Your task to perform on an android device: Is it going to rain tomorrow? Image 0: 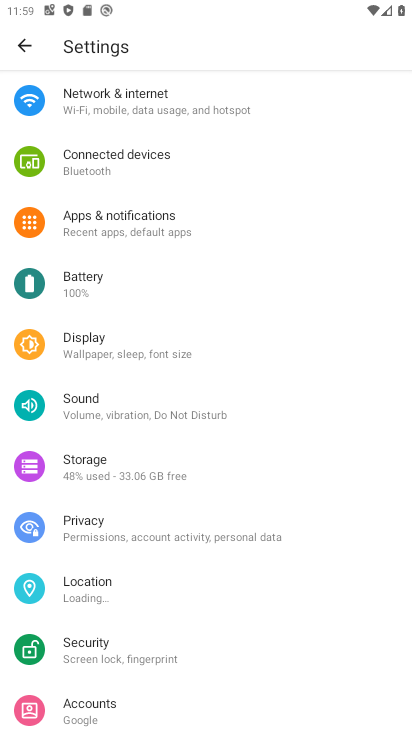
Step 0: press home button
Your task to perform on an android device: Is it going to rain tomorrow? Image 1: 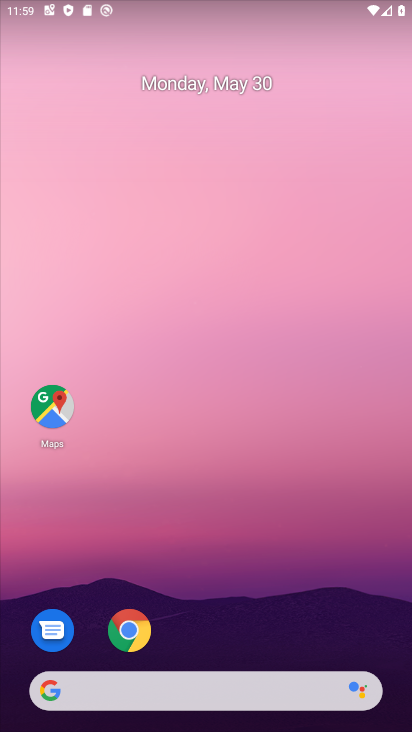
Step 1: click (56, 691)
Your task to perform on an android device: Is it going to rain tomorrow? Image 2: 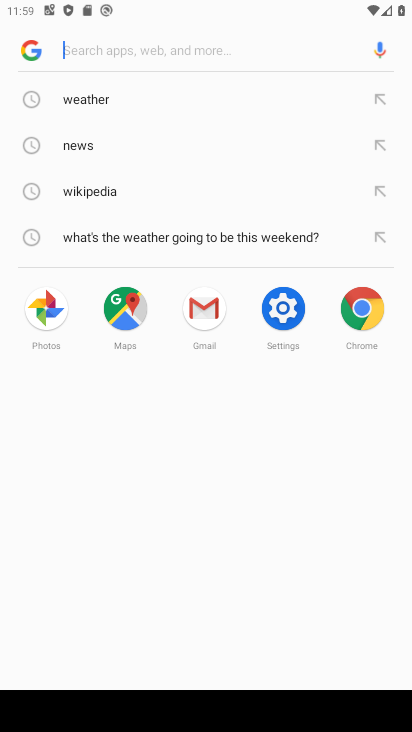
Step 2: click (84, 108)
Your task to perform on an android device: Is it going to rain tomorrow? Image 3: 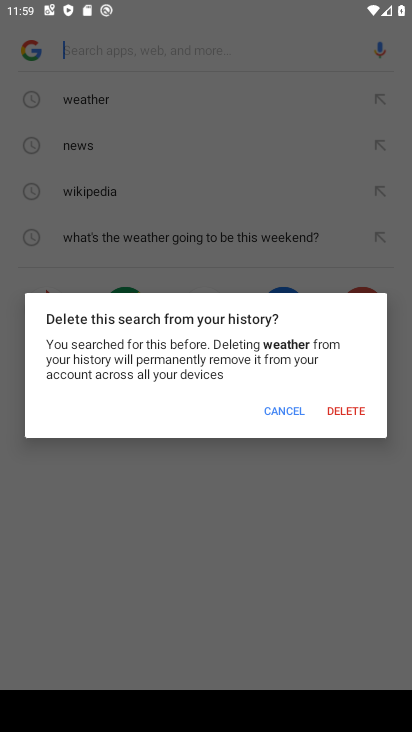
Step 3: click (279, 413)
Your task to perform on an android device: Is it going to rain tomorrow? Image 4: 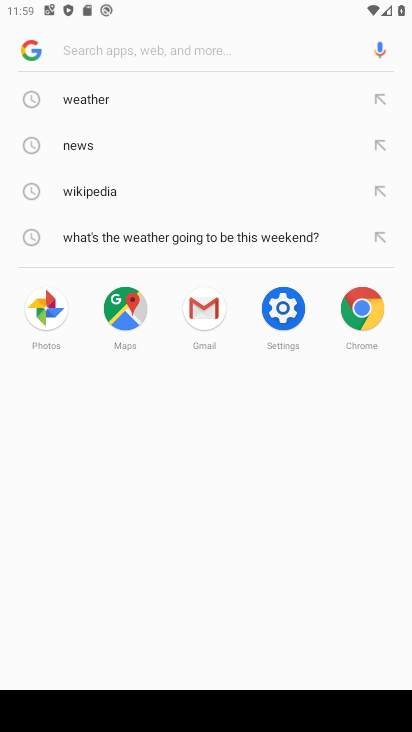
Step 4: click (81, 102)
Your task to perform on an android device: Is it going to rain tomorrow? Image 5: 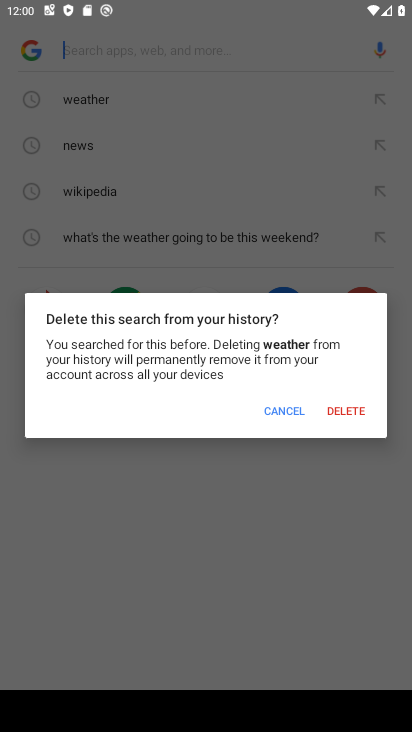
Step 5: click (284, 414)
Your task to perform on an android device: Is it going to rain tomorrow? Image 6: 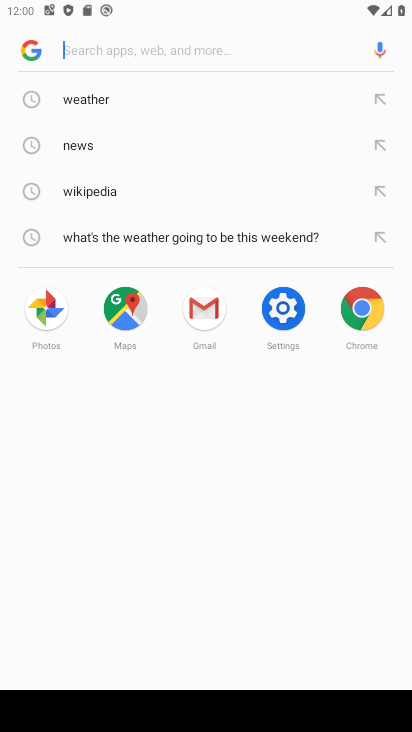
Step 6: click (95, 100)
Your task to perform on an android device: Is it going to rain tomorrow? Image 7: 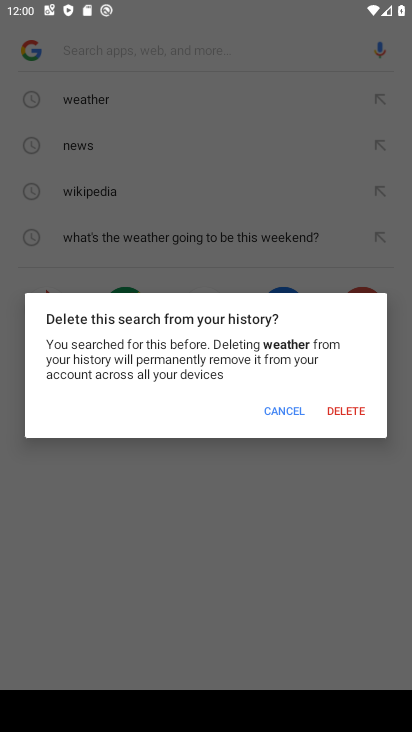
Step 7: click (284, 408)
Your task to perform on an android device: Is it going to rain tomorrow? Image 8: 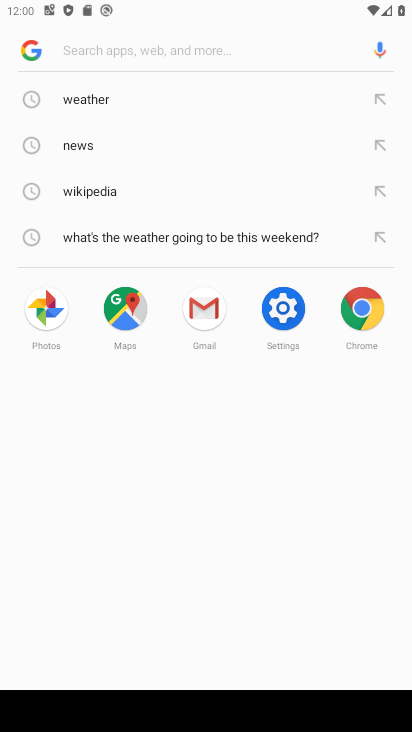
Step 8: click (212, 101)
Your task to perform on an android device: Is it going to rain tomorrow? Image 9: 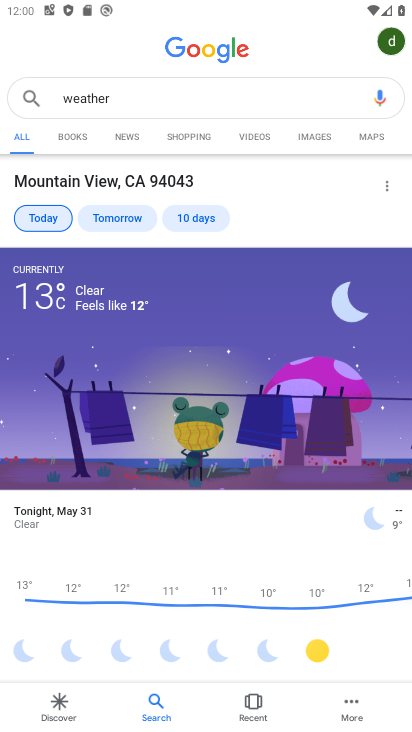
Step 9: click (124, 218)
Your task to perform on an android device: Is it going to rain tomorrow? Image 10: 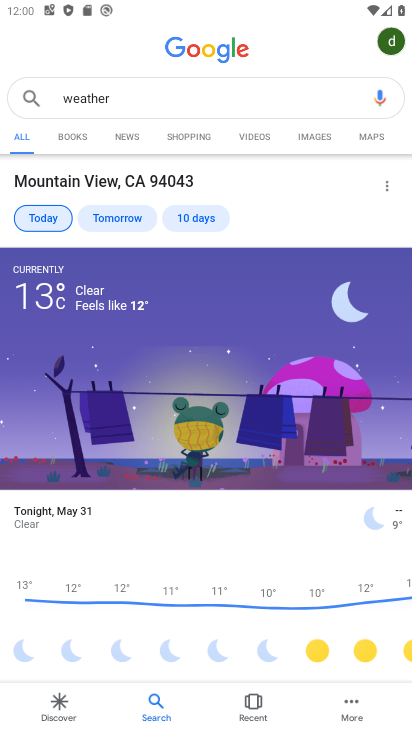
Step 10: click (118, 217)
Your task to perform on an android device: Is it going to rain tomorrow? Image 11: 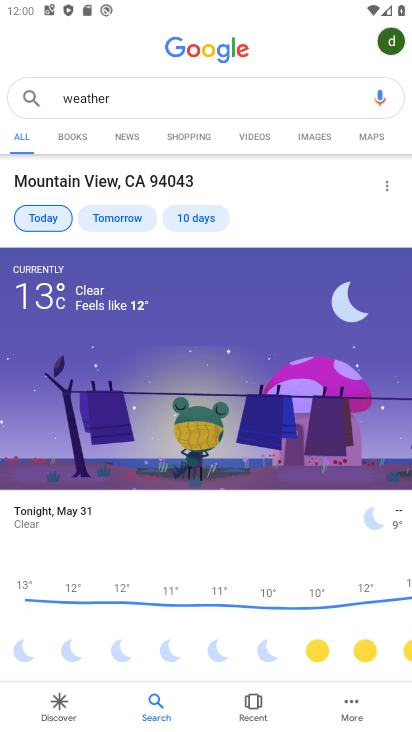
Step 11: click (118, 218)
Your task to perform on an android device: Is it going to rain tomorrow? Image 12: 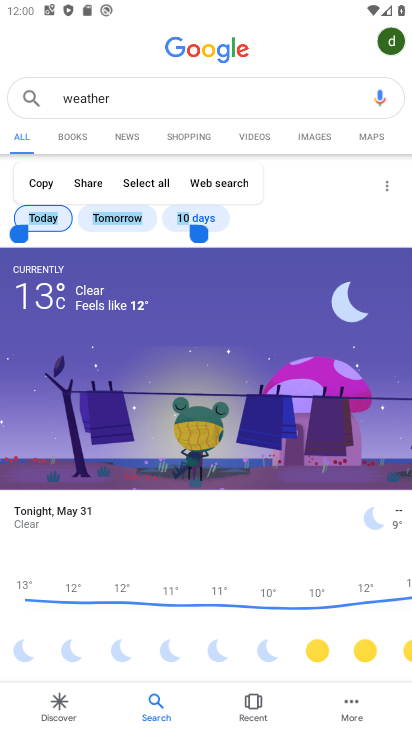
Step 12: drag from (172, 553) to (340, 86)
Your task to perform on an android device: Is it going to rain tomorrow? Image 13: 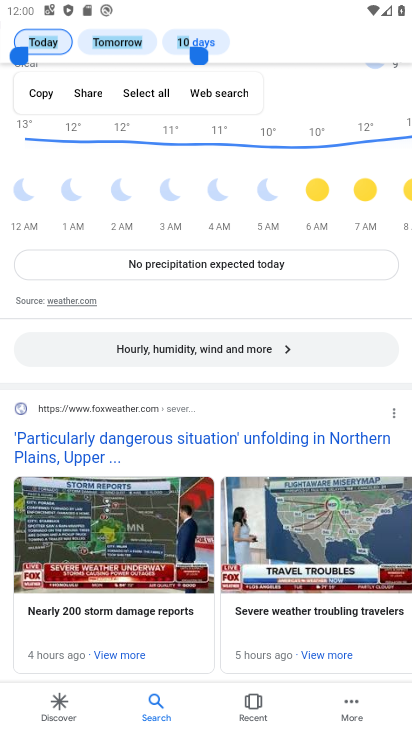
Step 13: drag from (131, 186) to (106, 726)
Your task to perform on an android device: Is it going to rain tomorrow? Image 14: 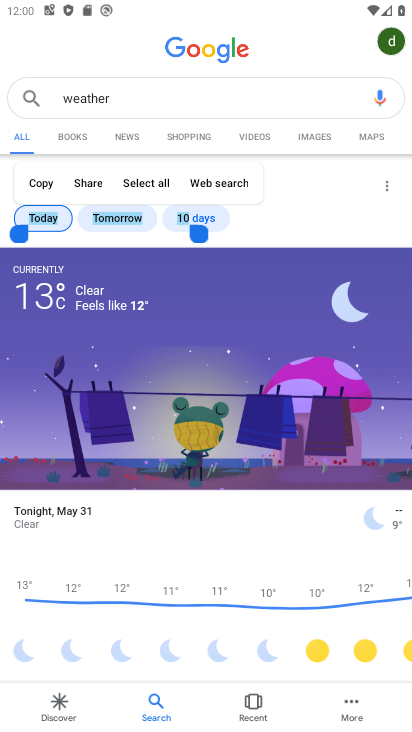
Step 14: click (116, 217)
Your task to perform on an android device: Is it going to rain tomorrow? Image 15: 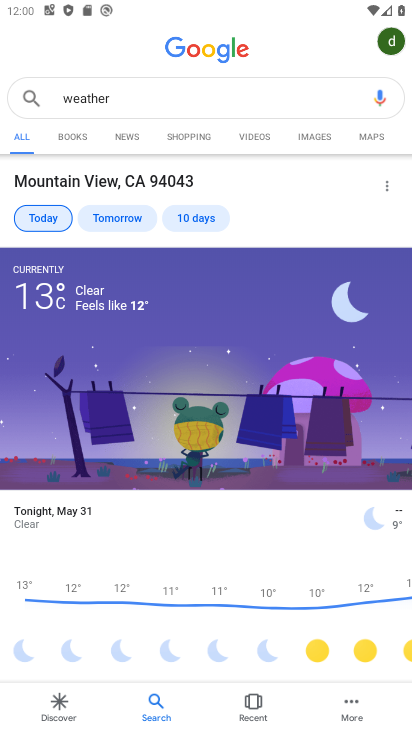
Step 15: click (116, 217)
Your task to perform on an android device: Is it going to rain tomorrow? Image 16: 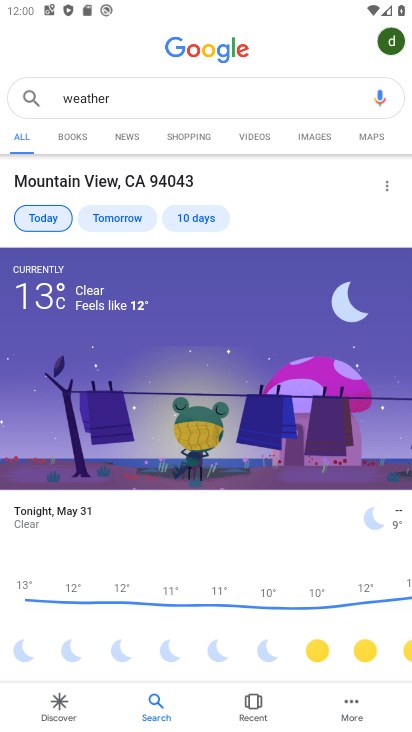
Step 16: task complete